Your task to perform on an android device: Open calendar and show me the third week of next month Image 0: 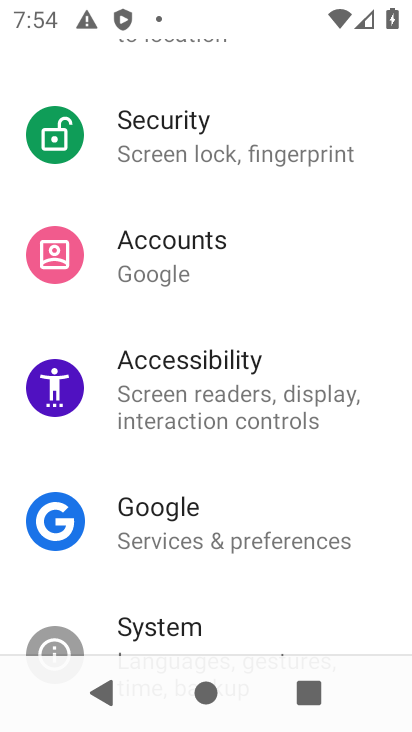
Step 0: press home button
Your task to perform on an android device: Open calendar and show me the third week of next month Image 1: 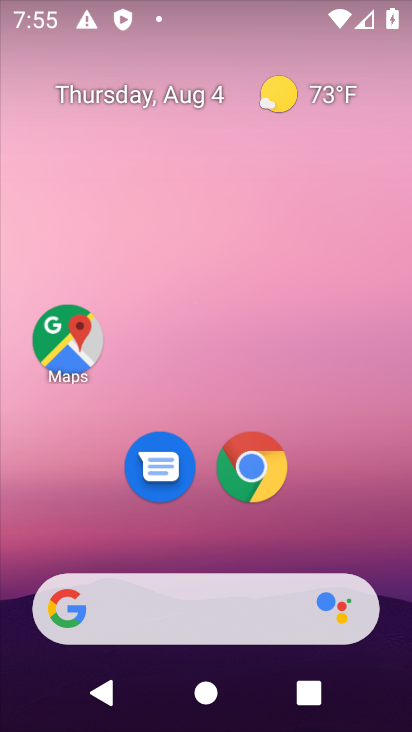
Step 1: drag from (321, 373) to (331, 52)
Your task to perform on an android device: Open calendar and show me the third week of next month Image 2: 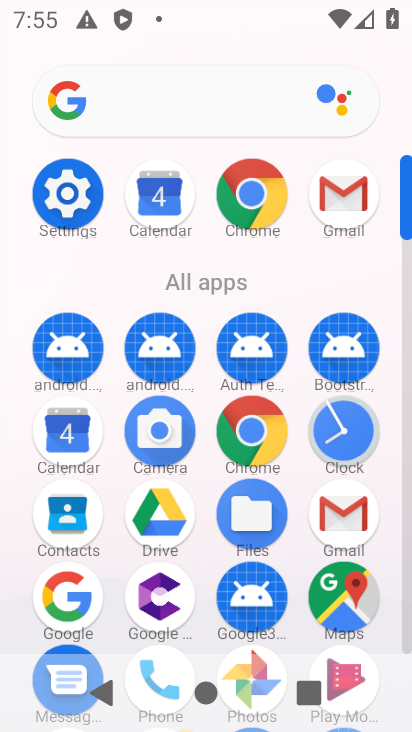
Step 2: click (52, 427)
Your task to perform on an android device: Open calendar and show me the third week of next month Image 3: 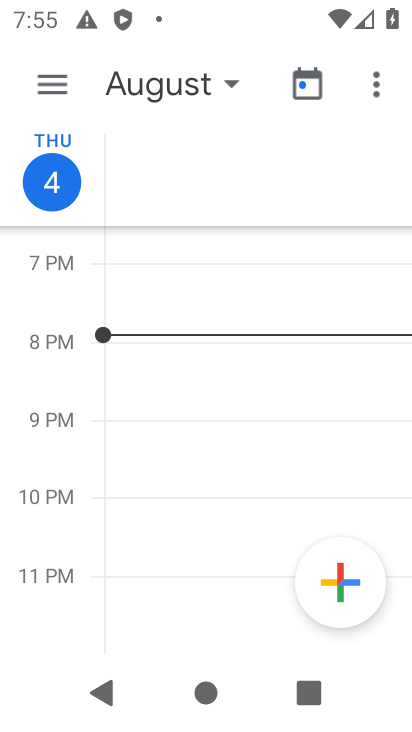
Step 3: click (168, 79)
Your task to perform on an android device: Open calendar and show me the third week of next month Image 4: 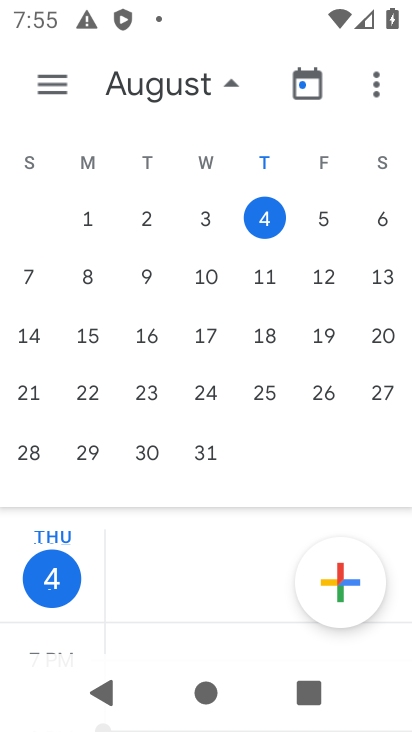
Step 4: drag from (377, 321) to (2, 310)
Your task to perform on an android device: Open calendar and show me the third week of next month Image 5: 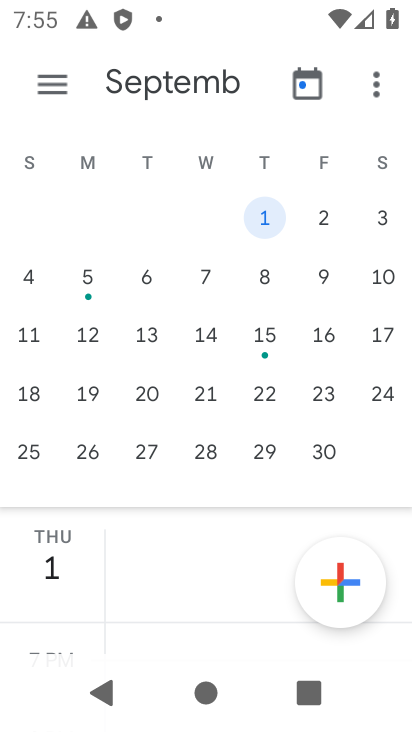
Step 5: click (89, 391)
Your task to perform on an android device: Open calendar and show me the third week of next month Image 6: 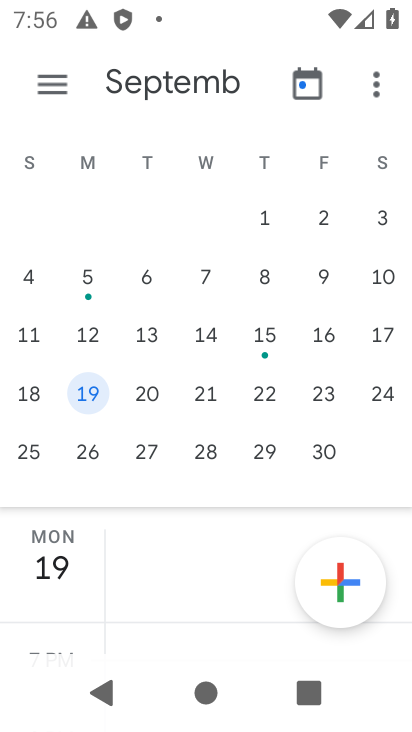
Step 6: task complete